Your task to perform on an android device: Search for sushi restaurants on Maps Image 0: 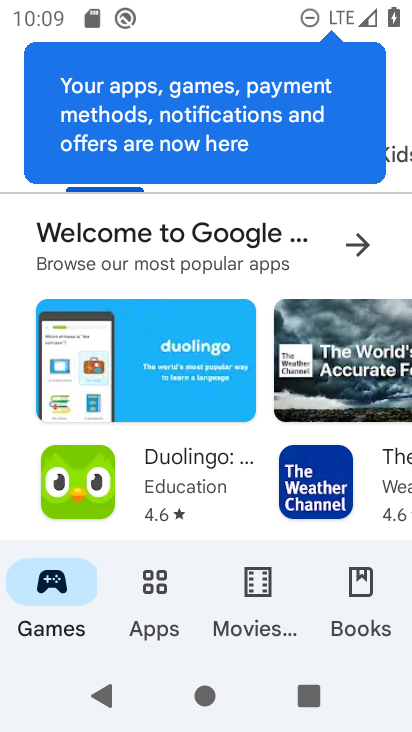
Step 0: press home button
Your task to perform on an android device: Search for sushi restaurants on Maps Image 1: 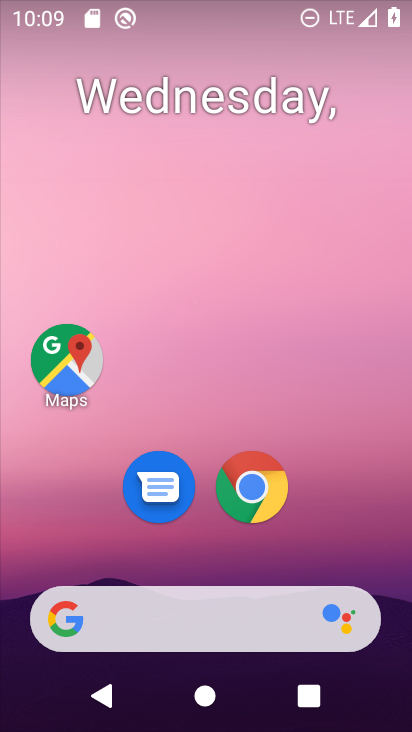
Step 1: click (65, 375)
Your task to perform on an android device: Search for sushi restaurants on Maps Image 2: 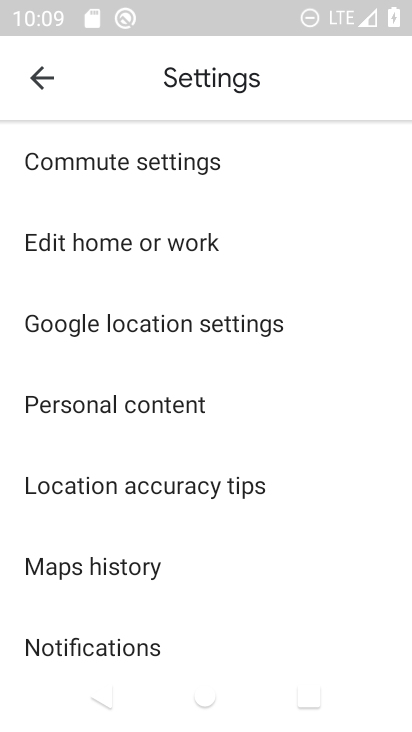
Step 2: click (34, 80)
Your task to perform on an android device: Search for sushi restaurants on Maps Image 3: 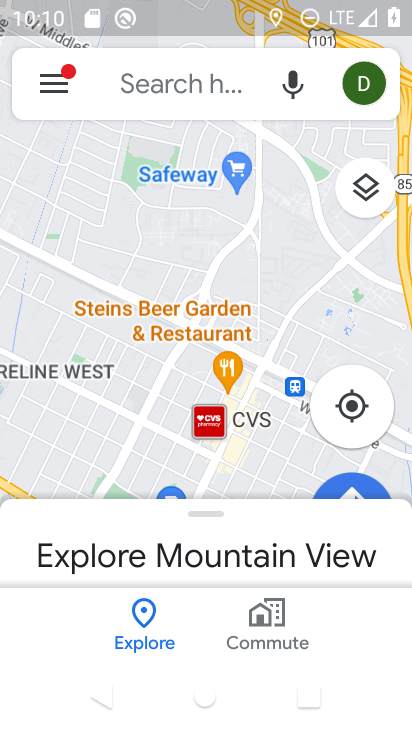
Step 3: click (129, 74)
Your task to perform on an android device: Search for sushi restaurants on Maps Image 4: 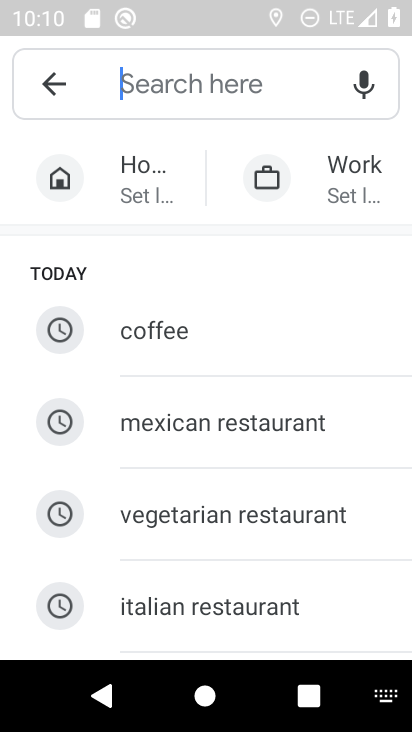
Step 4: type "sushi rest"
Your task to perform on an android device: Search for sushi restaurants on Maps Image 5: 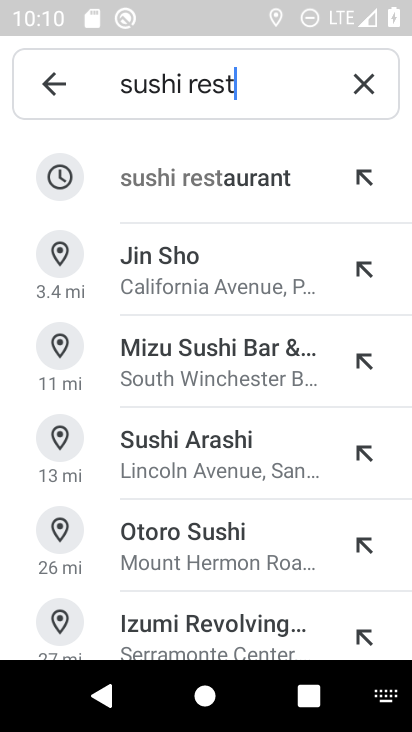
Step 5: click (230, 166)
Your task to perform on an android device: Search for sushi restaurants on Maps Image 6: 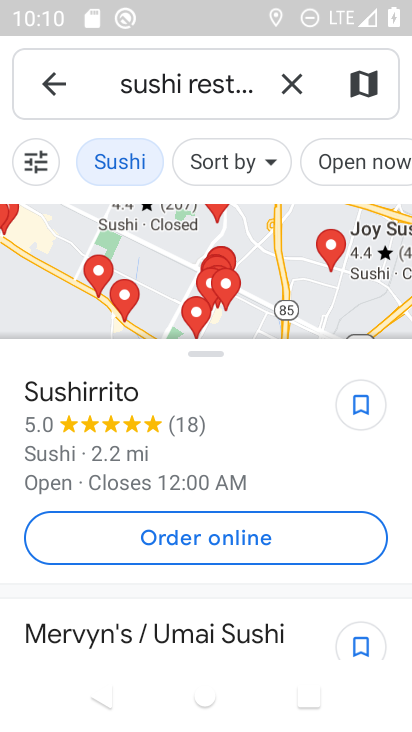
Step 6: task complete